Your task to perform on an android device: Open accessibility settings Image 0: 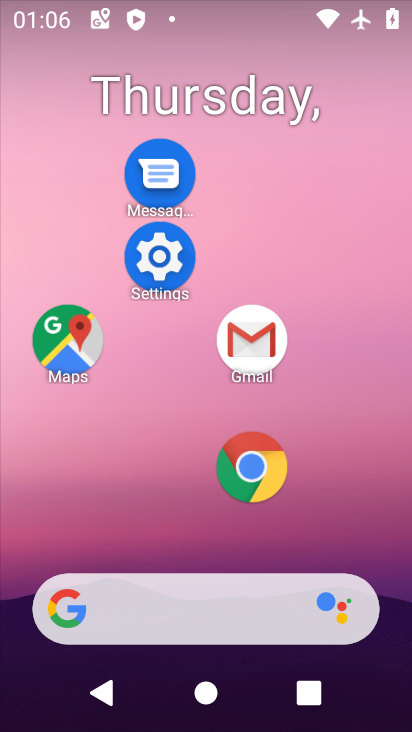
Step 0: drag from (223, 389) to (243, 162)
Your task to perform on an android device: Open accessibility settings Image 1: 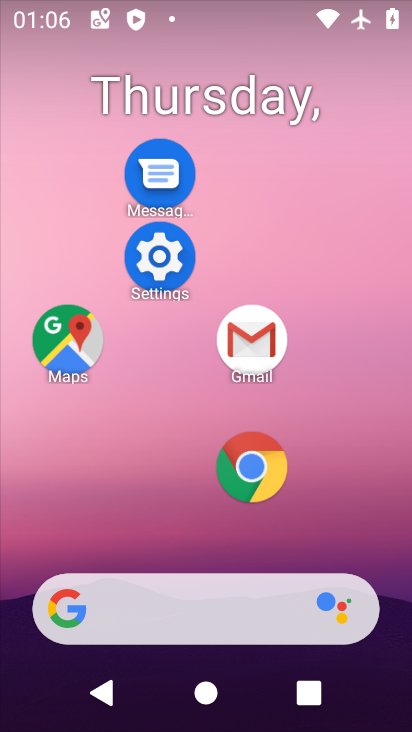
Step 1: drag from (187, 541) to (213, 199)
Your task to perform on an android device: Open accessibility settings Image 2: 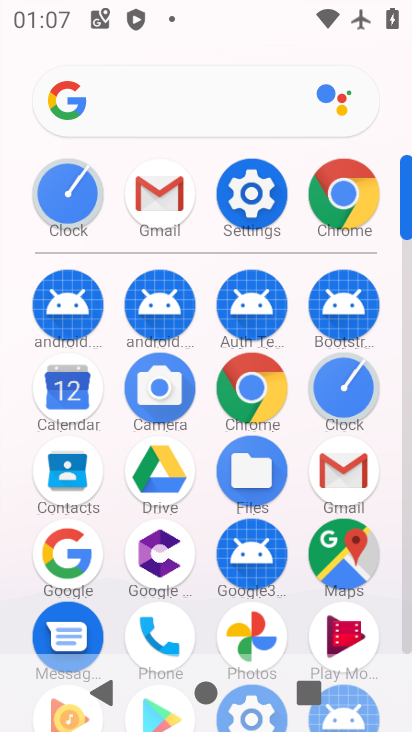
Step 2: click (254, 192)
Your task to perform on an android device: Open accessibility settings Image 3: 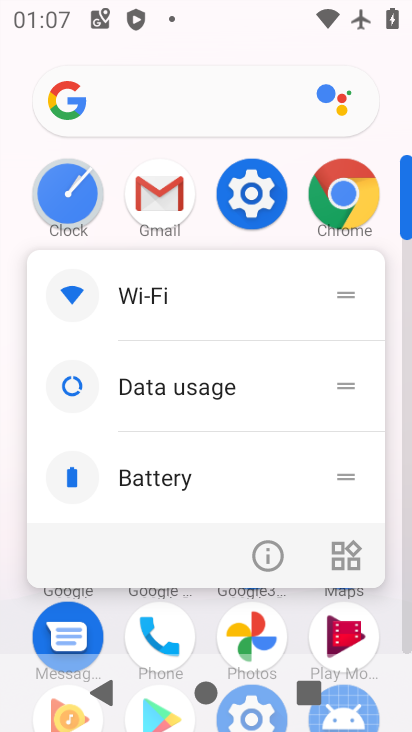
Step 3: click (259, 552)
Your task to perform on an android device: Open accessibility settings Image 4: 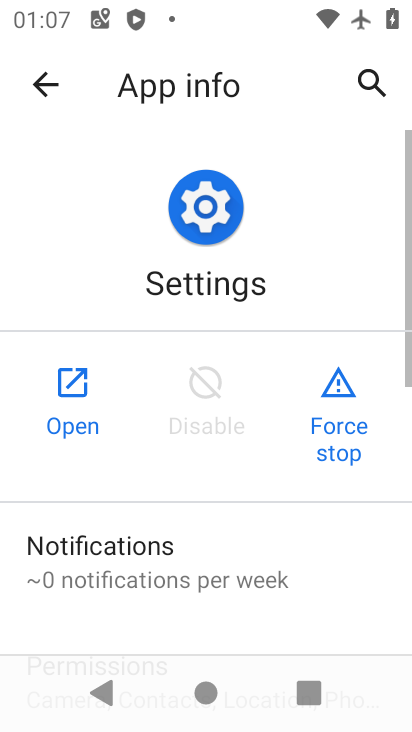
Step 4: click (61, 434)
Your task to perform on an android device: Open accessibility settings Image 5: 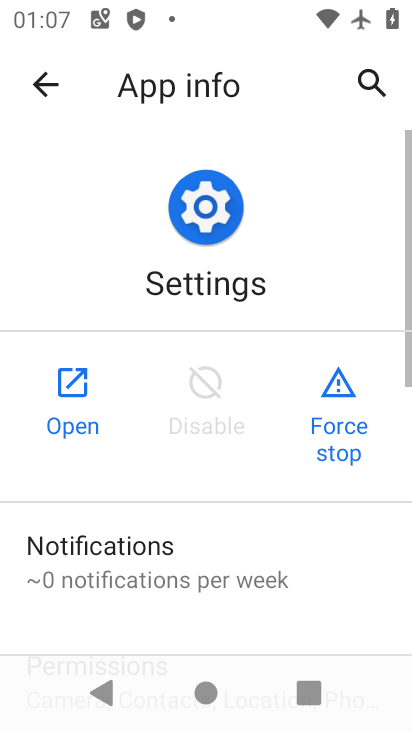
Step 5: click (61, 434)
Your task to perform on an android device: Open accessibility settings Image 6: 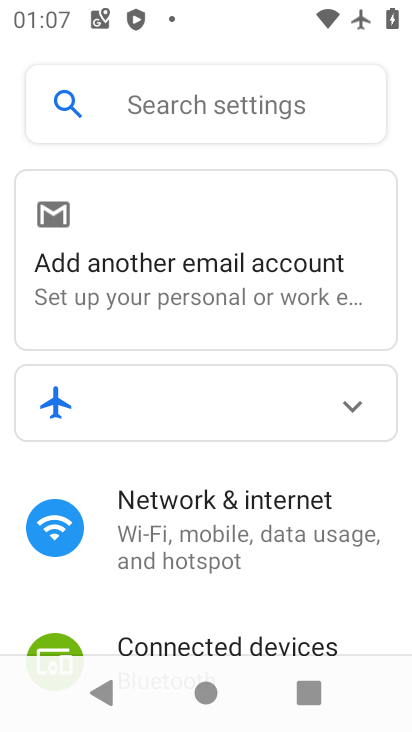
Step 6: drag from (304, 556) to (347, 126)
Your task to perform on an android device: Open accessibility settings Image 7: 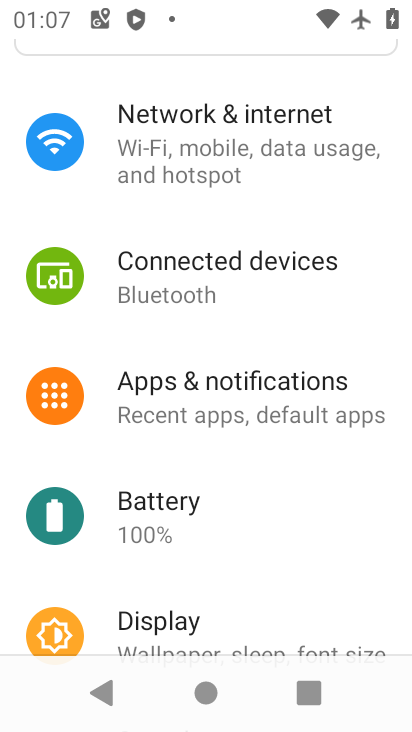
Step 7: drag from (239, 507) to (288, 172)
Your task to perform on an android device: Open accessibility settings Image 8: 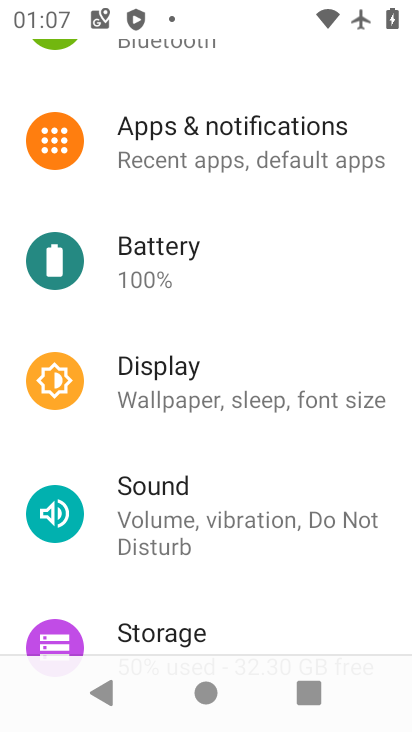
Step 8: drag from (234, 557) to (274, 168)
Your task to perform on an android device: Open accessibility settings Image 9: 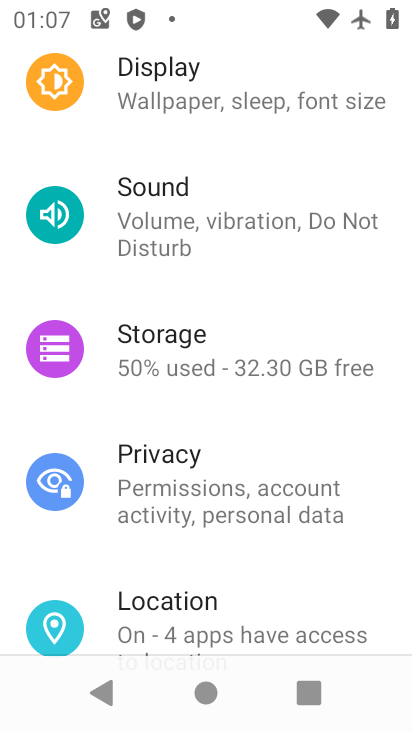
Step 9: drag from (263, 537) to (309, 186)
Your task to perform on an android device: Open accessibility settings Image 10: 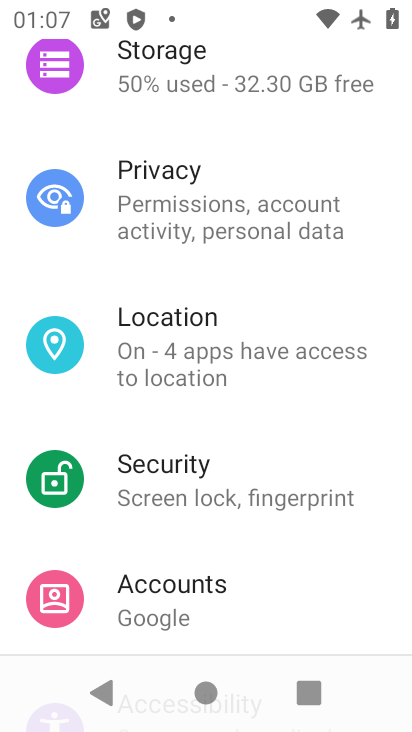
Step 10: drag from (211, 566) to (258, 281)
Your task to perform on an android device: Open accessibility settings Image 11: 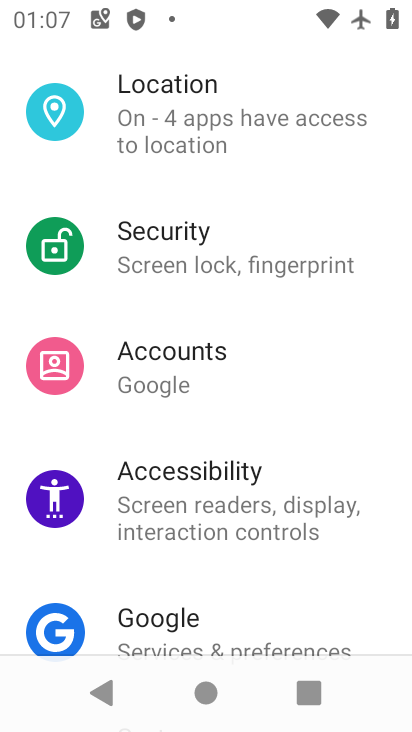
Step 11: click (179, 520)
Your task to perform on an android device: Open accessibility settings Image 12: 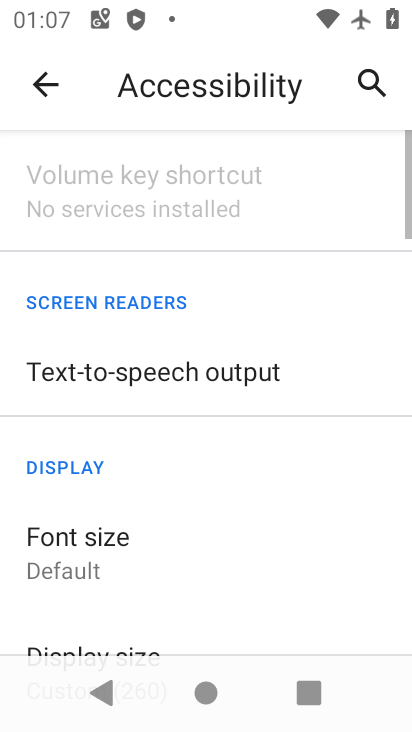
Step 12: task complete